Your task to perform on an android device: Open privacy settings Image 0: 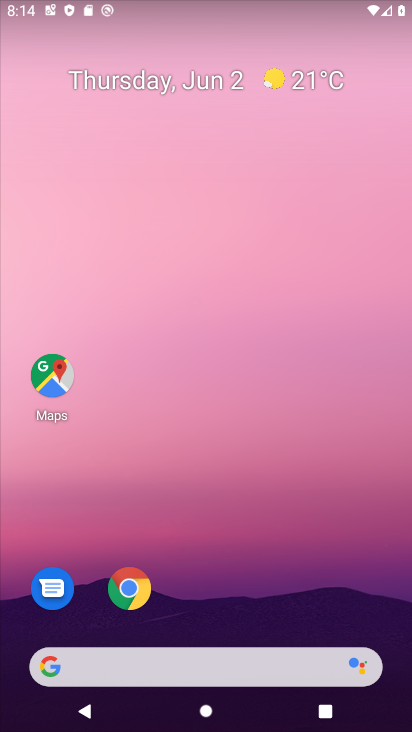
Step 0: drag from (215, 654) to (214, 153)
Your task to perform on an android device: Open privacy settings Image 1: 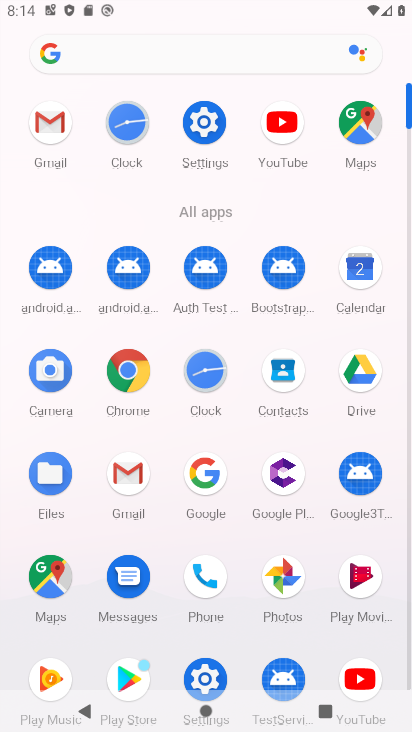
Step 1: click (213, 127)
Your task to perform on an android device: Open privacy settings Image 2: 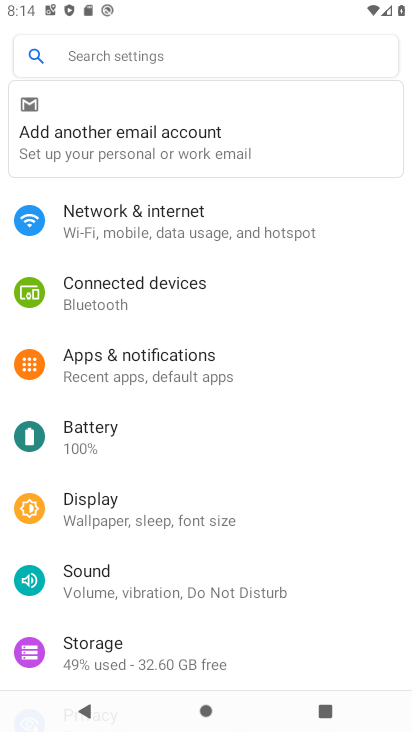
Step 2: drag from (157, 615) to (146, 198)
Your task to perform on an android device: Open privacy settings Image 3: 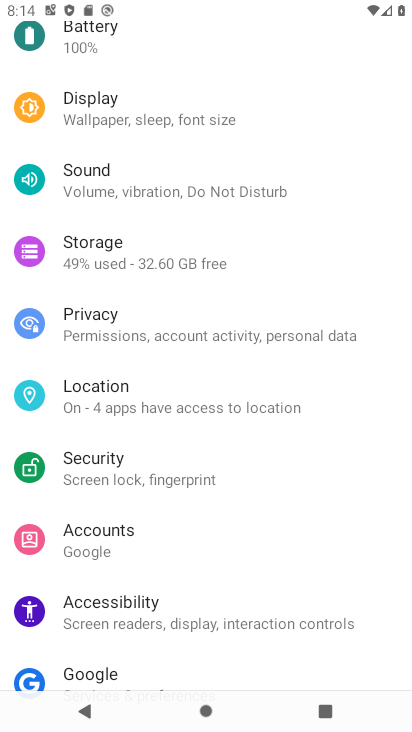
Step 3: click (128, 321)
Your task to perform on an android device: Open privacy settings Image 4: 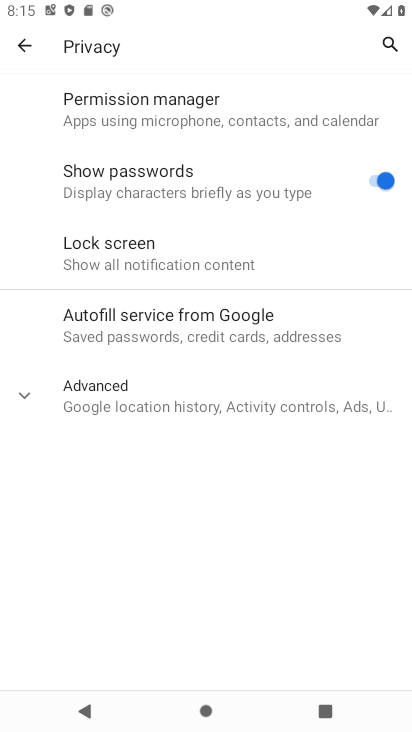
Step 4: task complete